Your task to perform on an android device: change alarm snooze length Image 0: 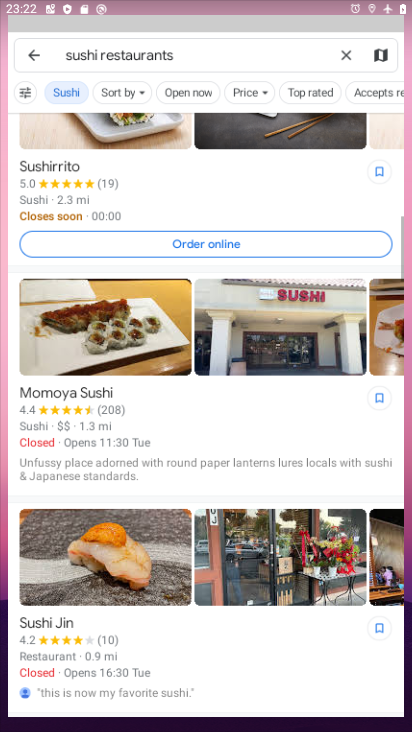
Step 0: drag from (378, 638) to (345, 358)
Your task to perform on an android device: change alarm snooze length Image 1: 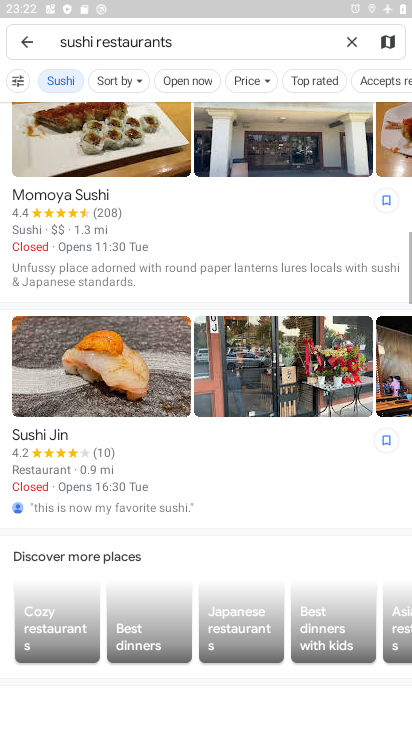
Step 1: press home button
Your task to perform on an android device: change alarm snooze length Image 2: 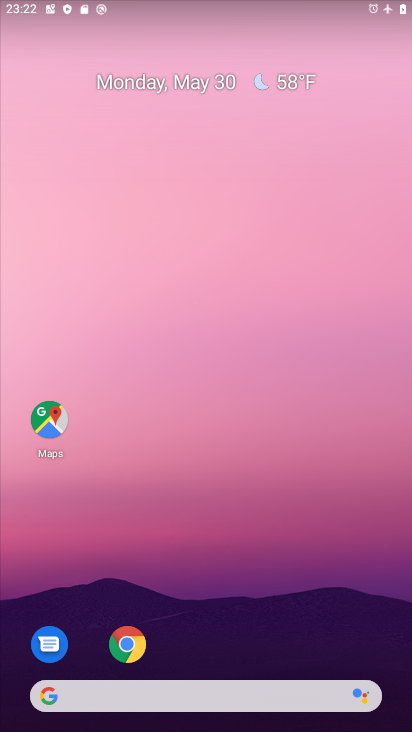
Step 2: drag from (331, 612) to (280, 164)
Your task to perform on an android device: change alarm snooze length Image 3: 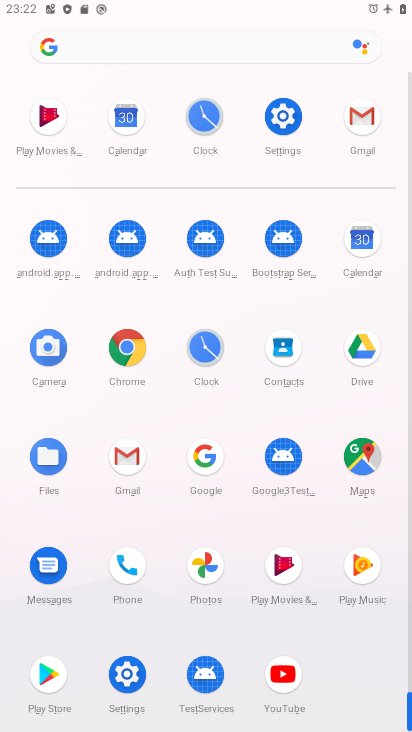
Step 3: click (205, 349)
Your task to perform on an android device: change alarm snooze length Image 4: 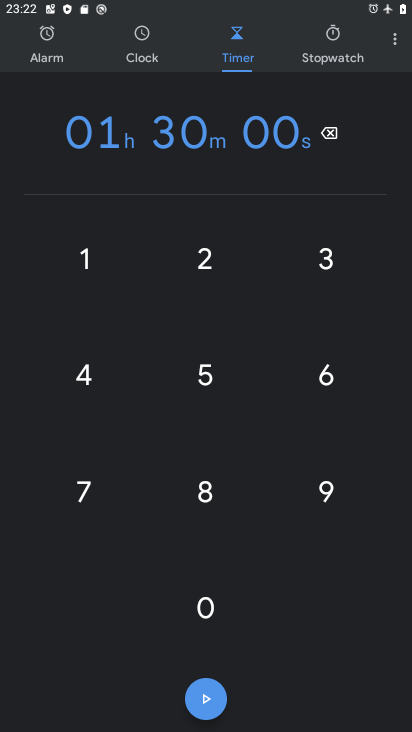
Step 4: click (394, 48)
Your task to perform on an android device: change alarm snooze length Image 5: 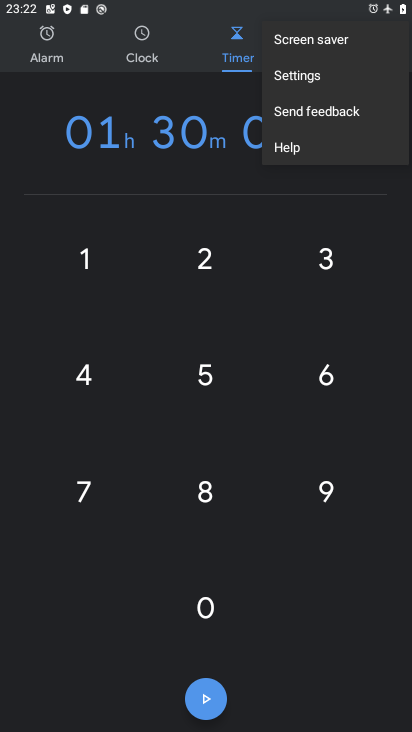
Step 5: click (296, 76)
Your task to perform on an android device: change alarm snooze length Image 6: 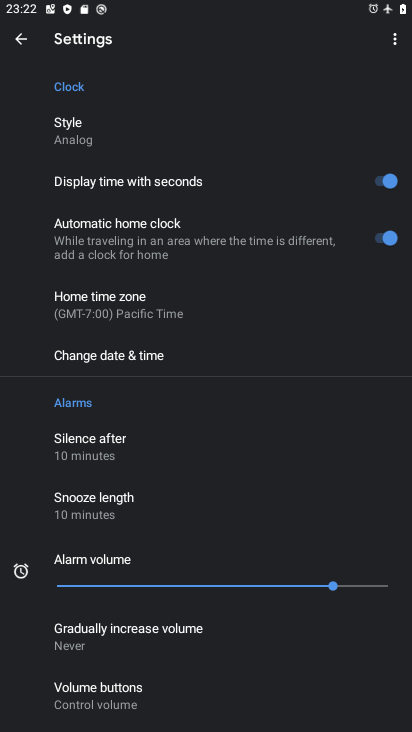
Step 6: drag from (171, 617) to (168, 427)
Your task to perform on an android device: change alarm snooze length Image 7: 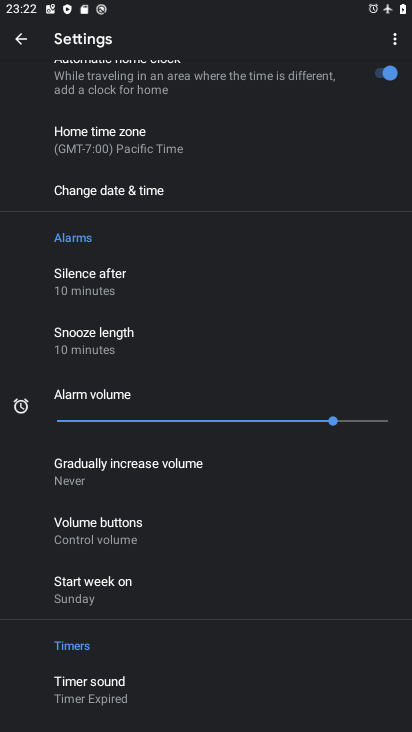
Step 7: click (90, 331)
Your task to perform on an android device: change alarm snooze length Image 8: 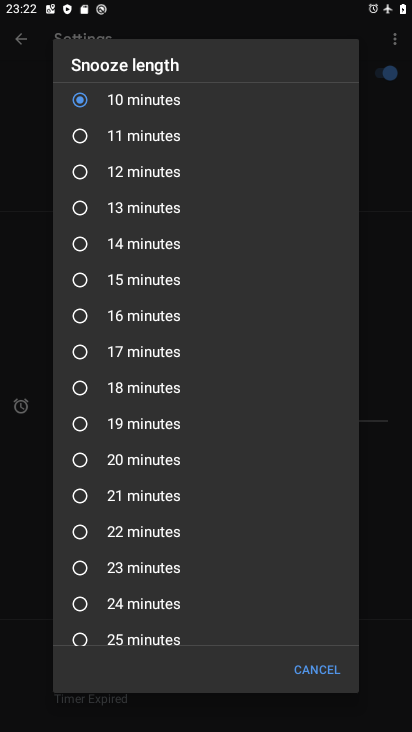
Step 8: click (79, 277)
Your task to perform on an android device: change alarm snooze length Image 9: 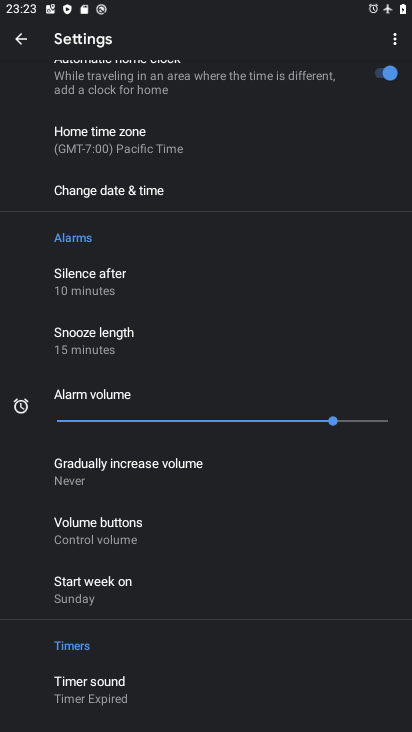
Step 9: task complete